Your task to perform on an android device: remove spam from my inbox in the gmail app Image 0: 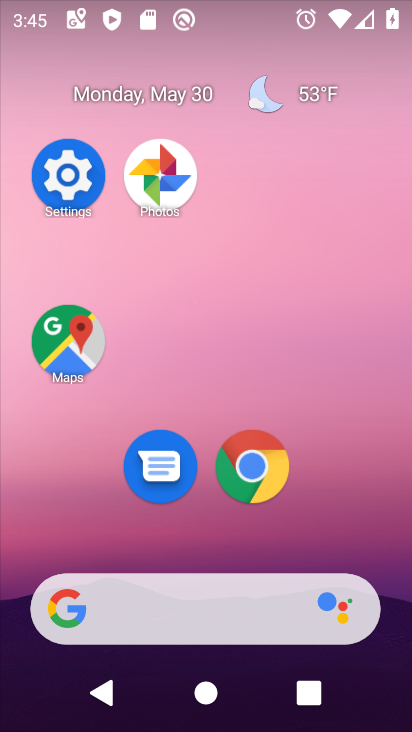
Step 0: drag from (301, 534) to (369, 11)
Your task to perform on an android device: remove spam from my inbox in the gmail app Image 1: 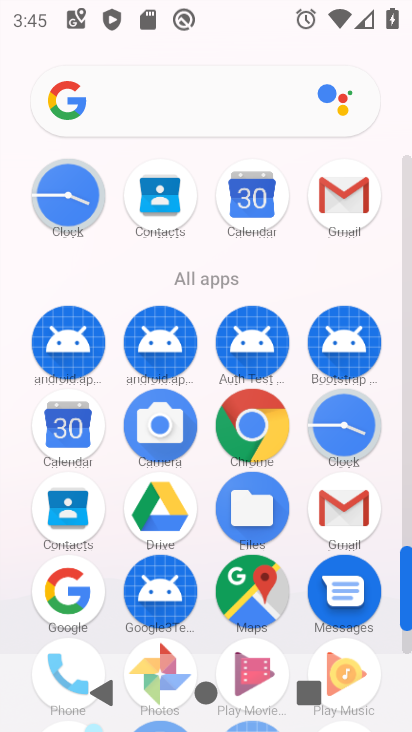
Step 1: click (357, 195)
Your task to perform on an android device: remove spam from my inbox in the gmail app Image 2: 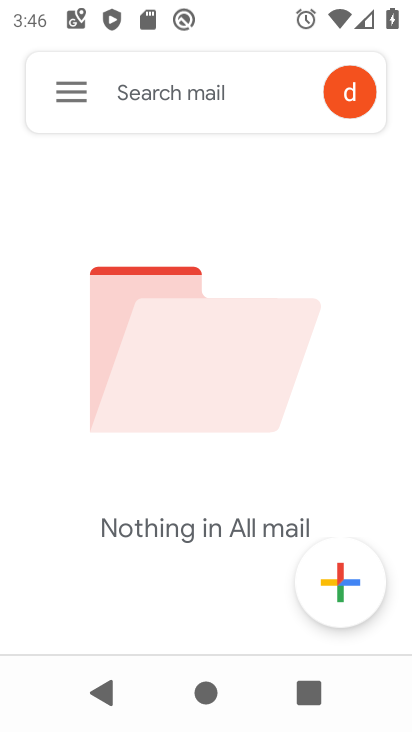
Step 2: click (70, 85)
Your task to perform on an android device: remove spam from my inbox in the gmail app Image 3: 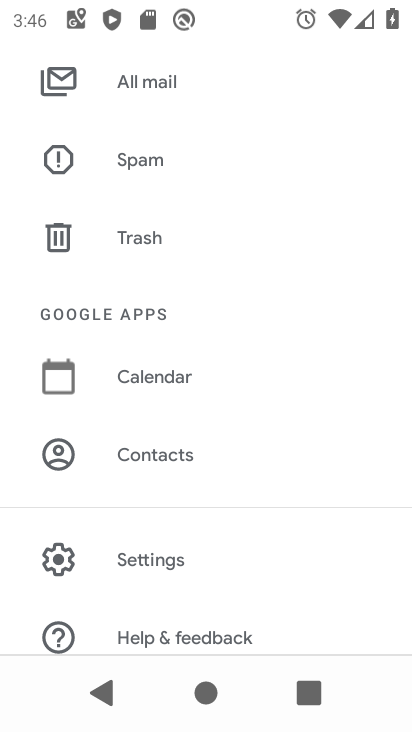
Step 3: click (187, 161)
Your task to perform on an android device: remove spam from my inbox in the gmail app Image 4: 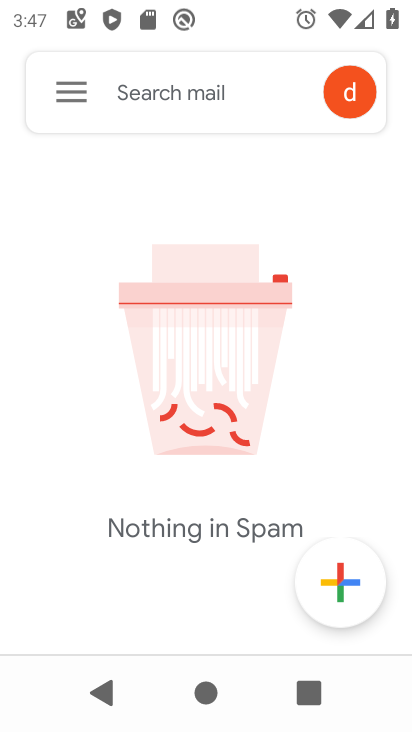
Step 4: task complete